Your task to perform on an android device: Go to CNN.com Image 0: 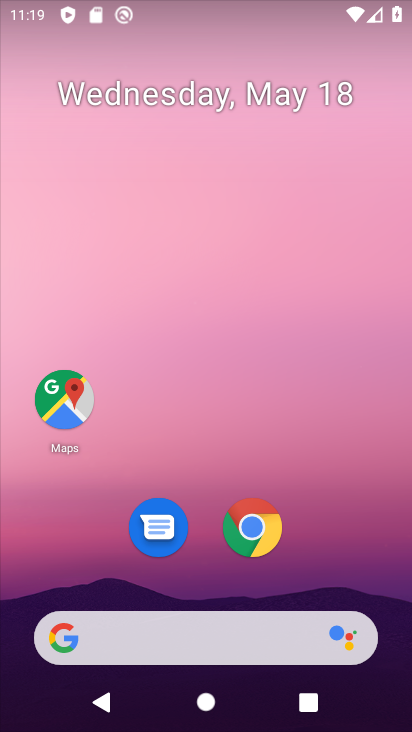
Step 0: click (260, 533)
Your task to perform on an android device: Go to CNN.com Image 1: 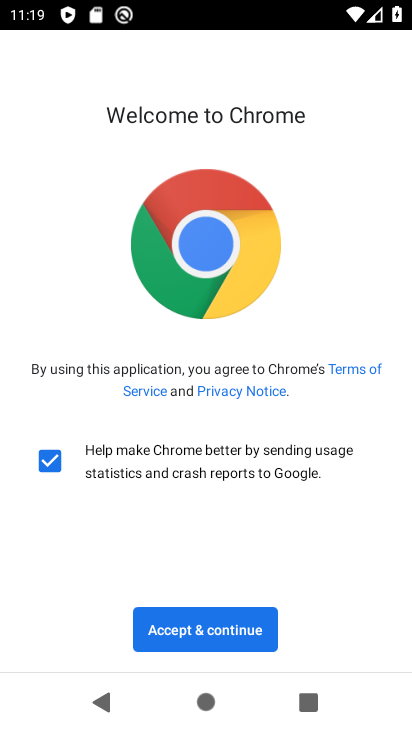
Step 1: click (199, 630)
Your task to perform on an android device: Go to CNN.com Image 2: 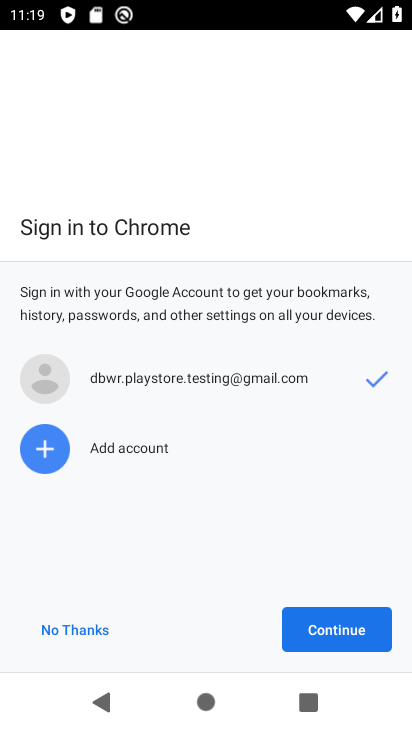
Step 2: click (320, 621)
Your task to perform on an android device: Go to CNN.com Image 3: 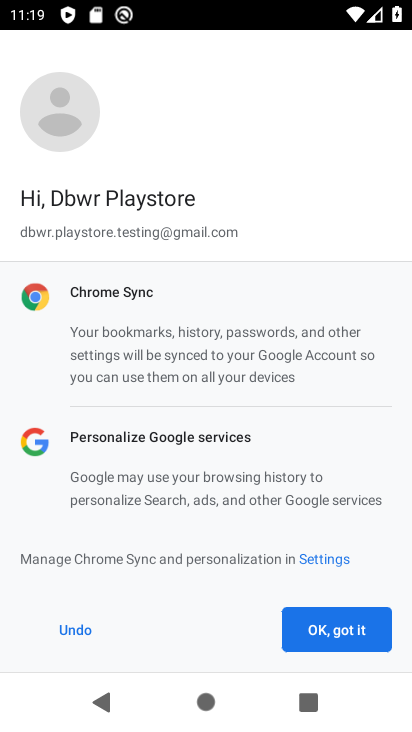
Step 3: click (329, 621)
Your task to perform on an android device: Go to CNN.com Image 4: 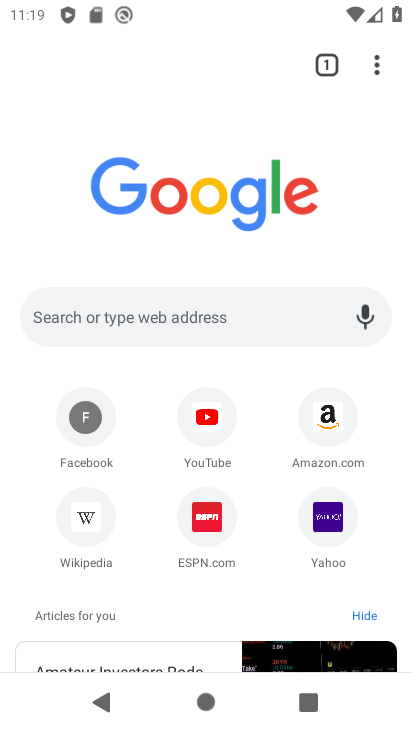
Step 4: click (131, 304)
Your task to perform on an android device: Go to CNN.com Image 5: 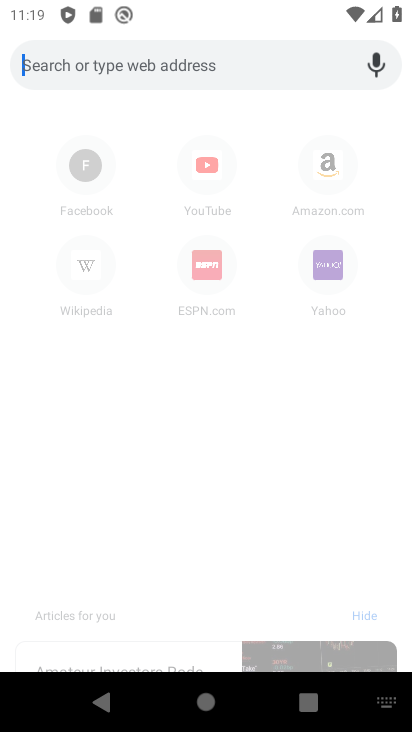
Step 5: type "cnn.com"
Your task to perform on an android device: Go to CNN.com Image 6: 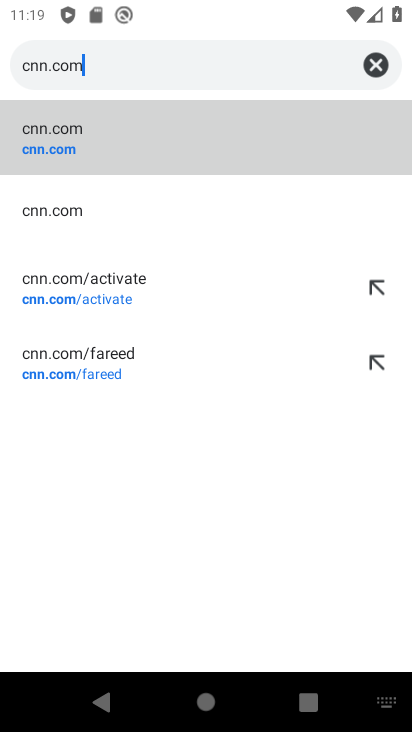
Step 6: click (81, 129)
Your task to perform on an android device: Go to CNN.com Image 7: 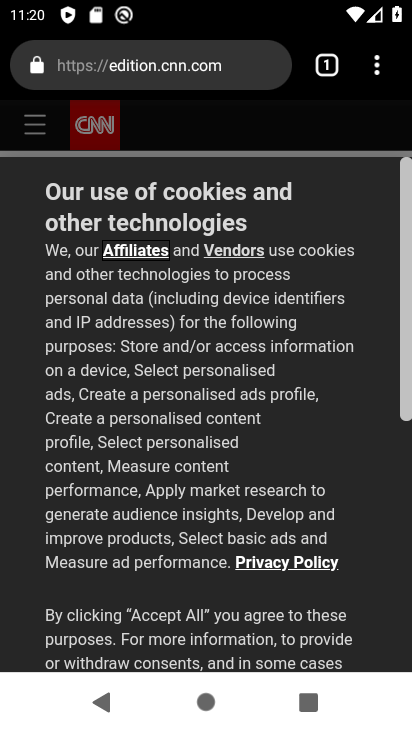
Step 7: task complete